Your task to perform on an android device: open app "Google Pay: Save, Pay, Manage" Image 0: 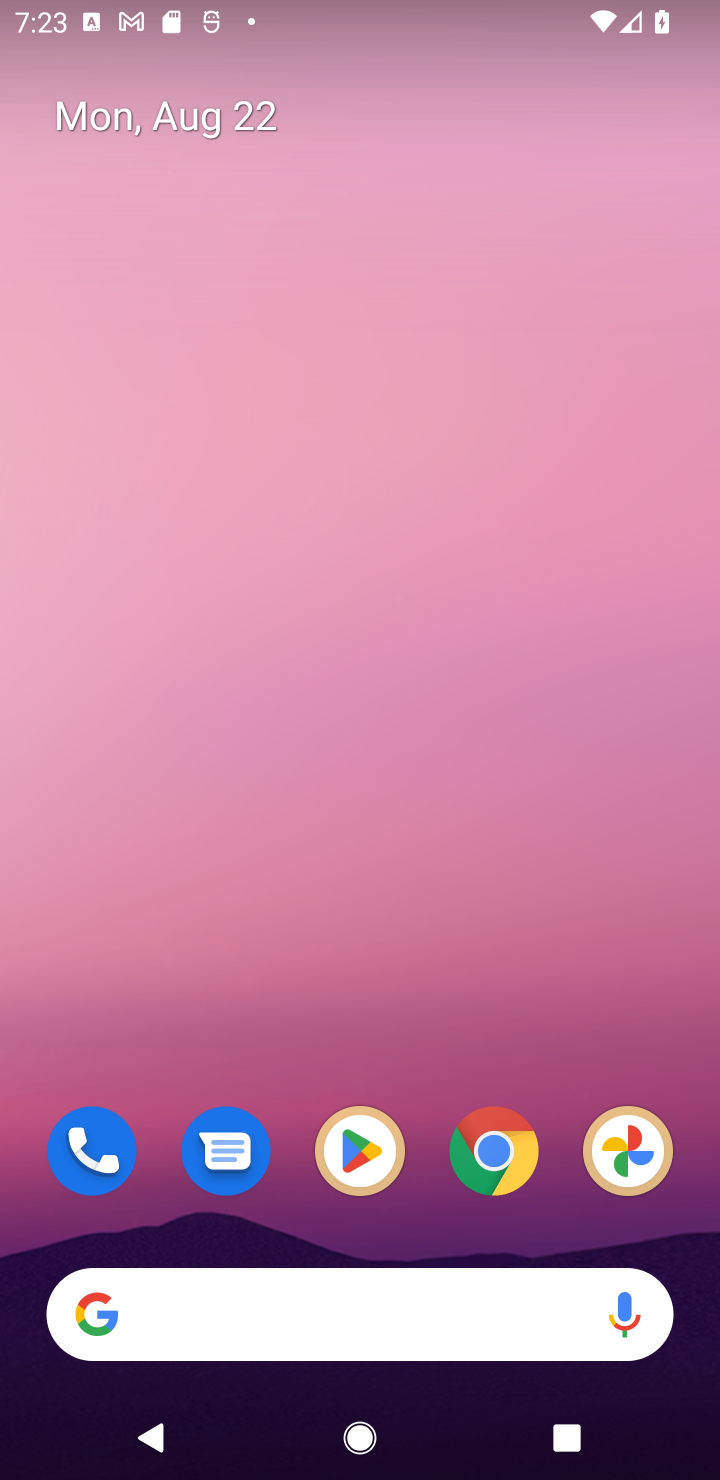
Step 0: click (364, 1145)
Your task to perform on an android device: open app "Google Pay: Save, Pay, Manage" Image 1: 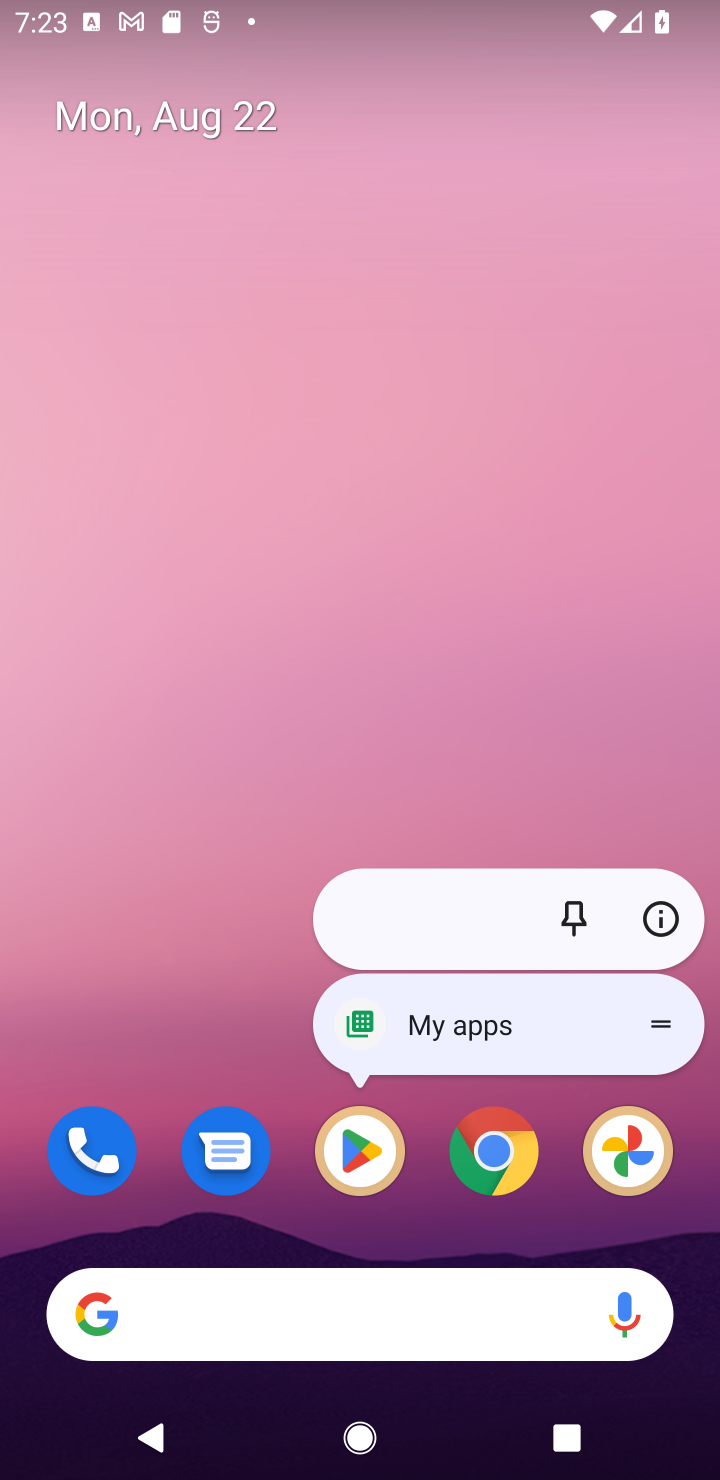
Step 1: click (363, 1147)
Your task to perform on an android device: open app "Google Pay: Save, Pay, Manage" Image 2: 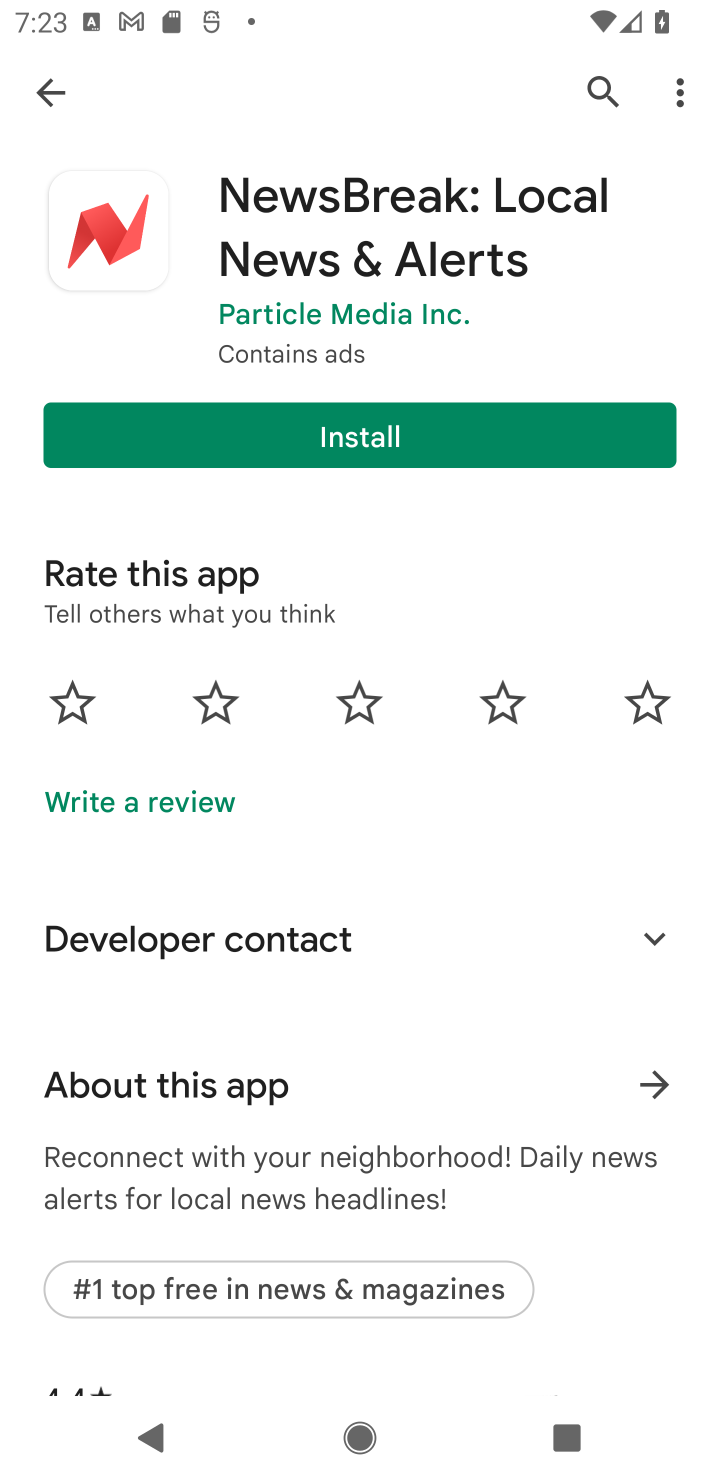
Step 2: click (588, 78)
Your task to perform on an android device: open app "Google Pay: Save, Pay, Manage" Image 3: 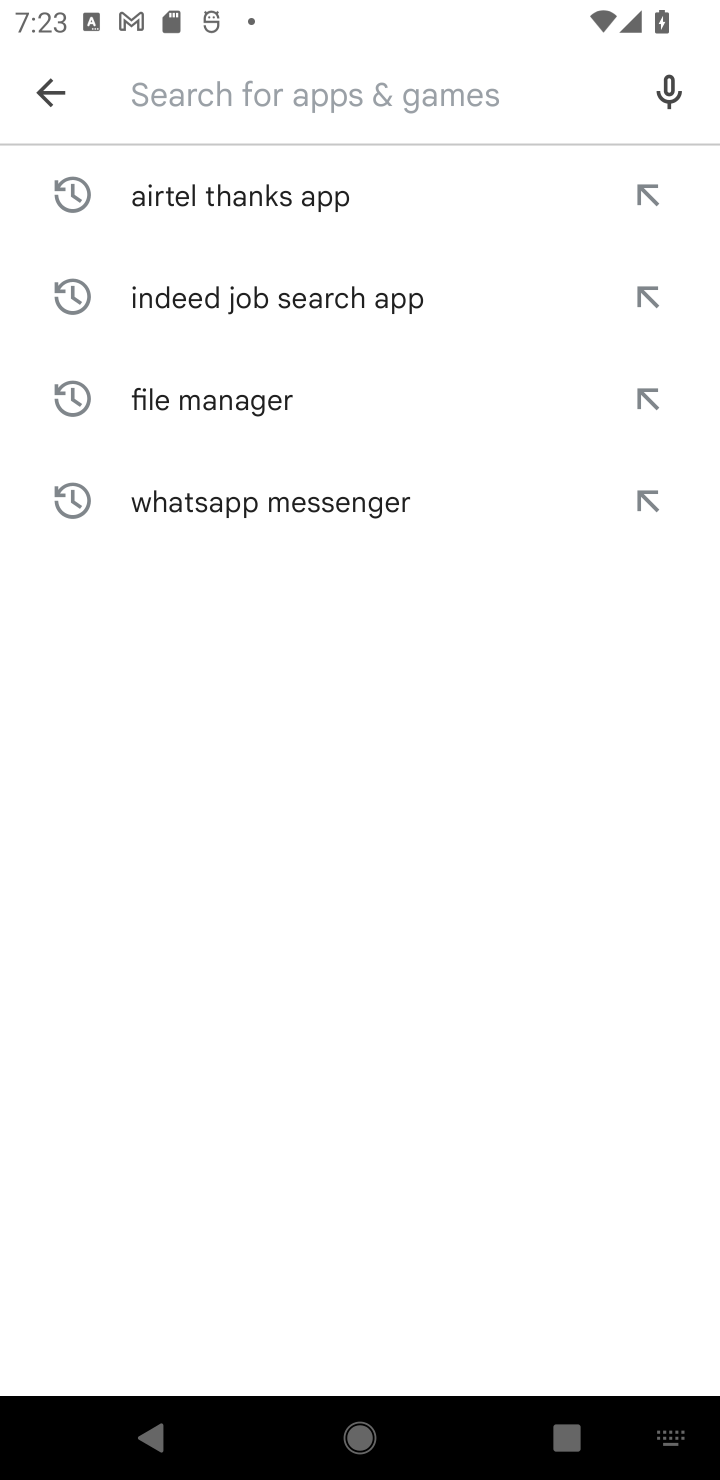
Step 3: type "Google Pay: Save, Pay, Manage"
Your task to perform on an android device: open app "Google Pay: Save, Pay, Manage" Image 4: 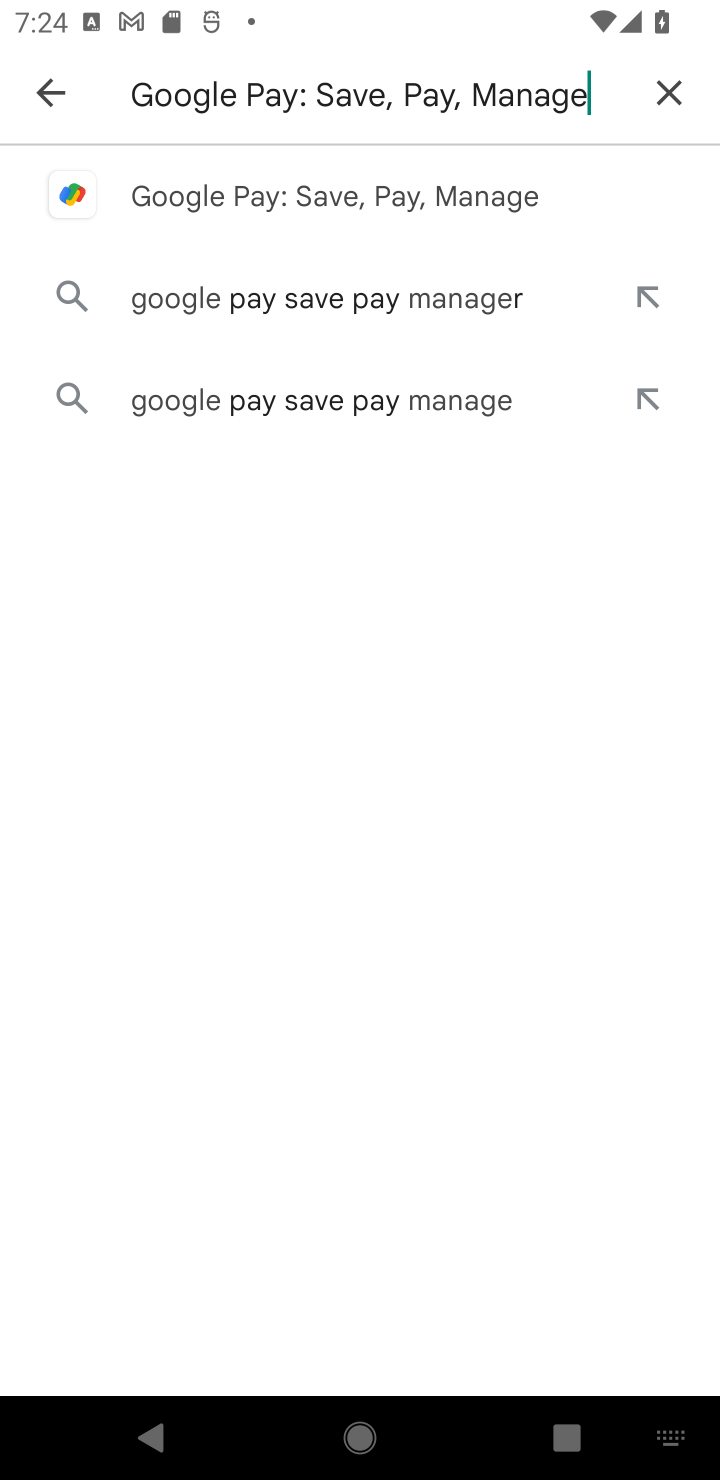
Step 4: click (302, 210)
Your task to perform on an android device: open app "Google Pay: Save, Pay, Manage" Image 5: 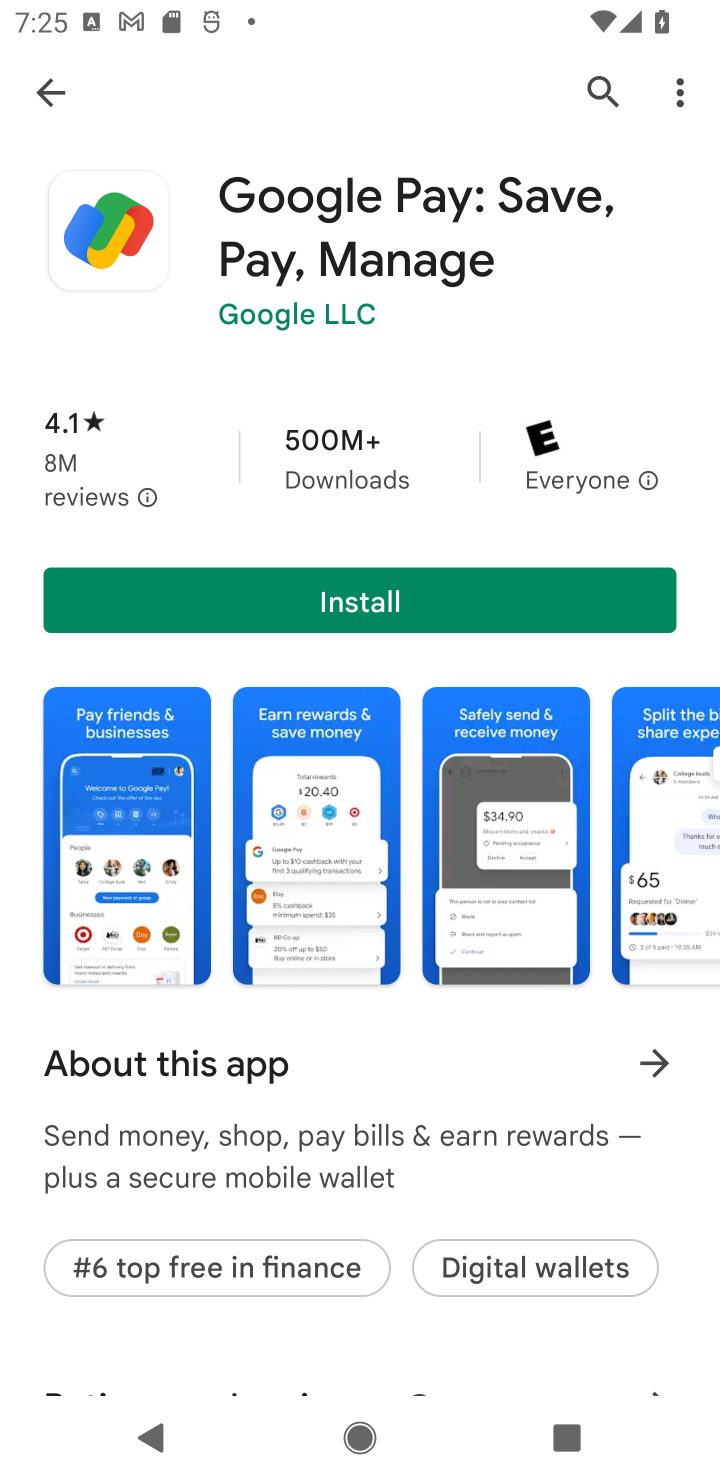
Step 5: task complete